Your task to perform on an android device: change the clock display to digital Image 0: 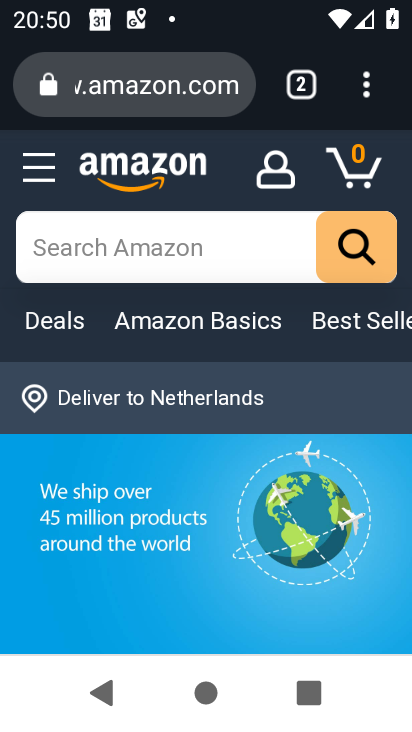
Step 0: press home button
Your task to perform on an android device: change the clock display to digital Image 1: 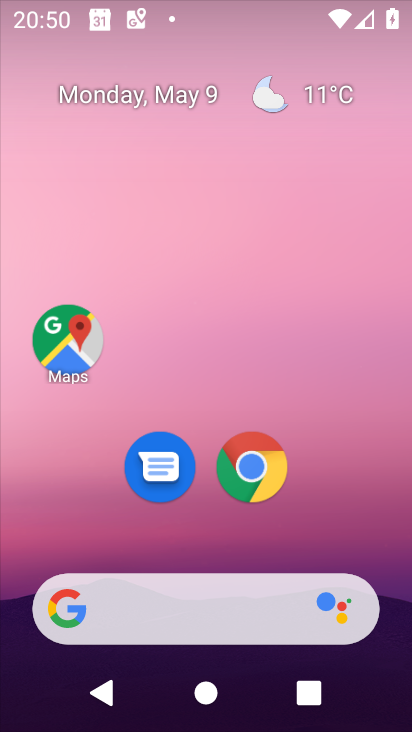
Step 1: drag from (345, 536) to (329, 282)
Your task to perform on an android device: change the clock display to digital Image 2: 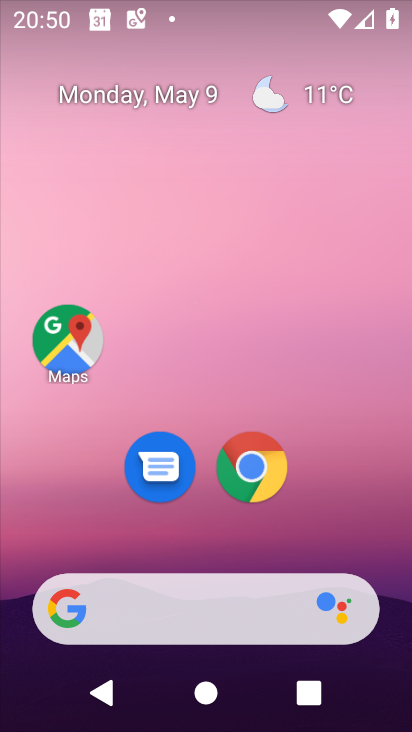
Step 2: drag from (315, 434) to (301, 294)
Your task to perform on an android device: change the clock display to digital Image 3: 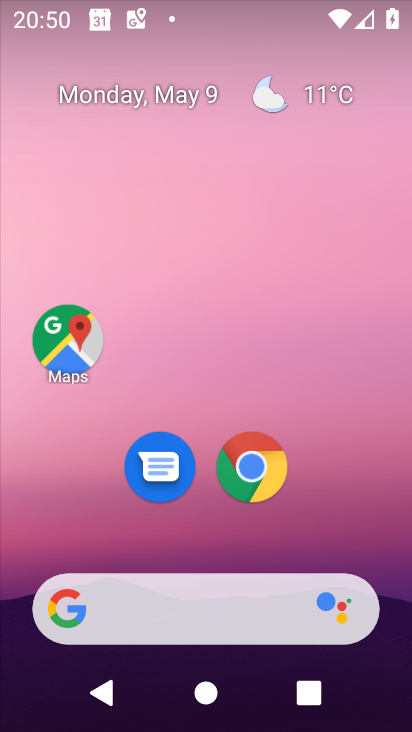
Step 3: drag from (264, 513) to (284, 243)
Your task to perform on an android device: change the clock display to digital Image 4: 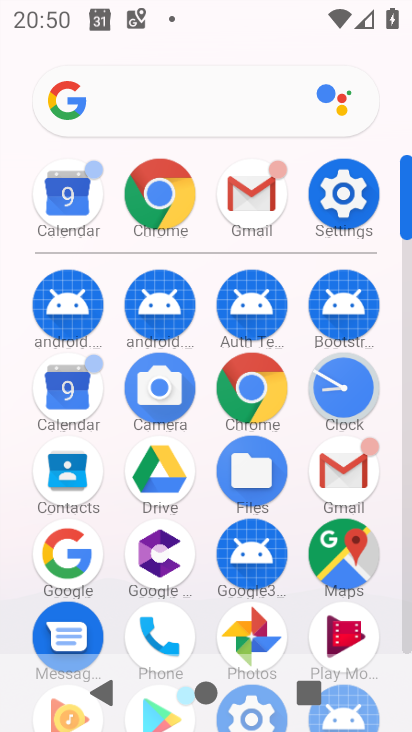
Step 4: click (349, 390)
Your task to perform on an android device: change the clock display to digital Image 5: 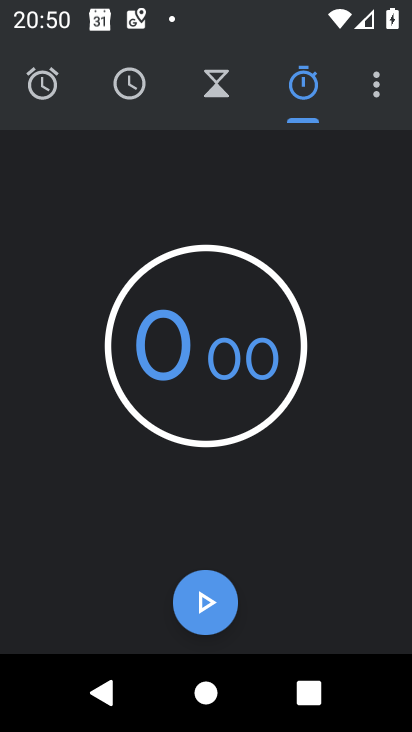
Step 5: click (368, 76)
Your task to perform on an android device: change the clock display to digital Image 6: 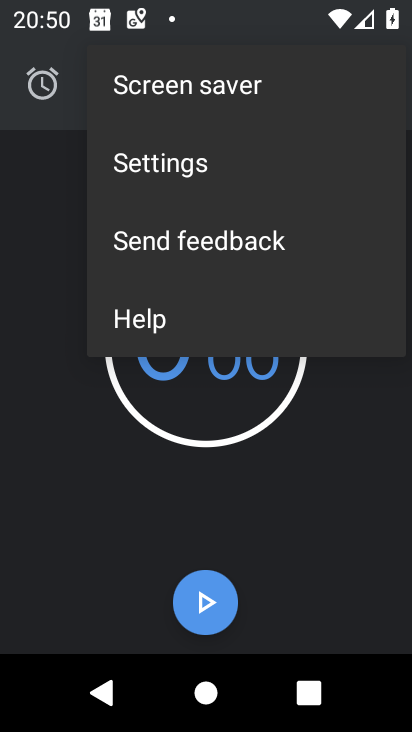
Step 6: click (186, 161)
Your task to perform on an android device: change the clock display to digital Image 7: 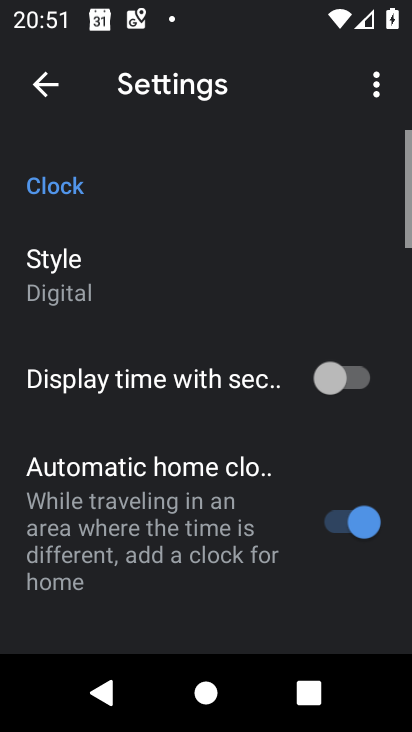
Step 7: click (91, 255)
Your task to perform on an android device: change the clock display to digital Image 8: 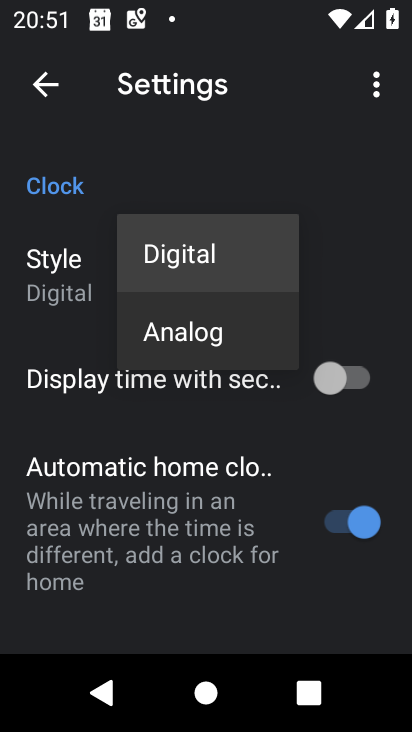
Step 8: click (167, 321)
Your task to perform on an android device: change the clock display to digital Image 9: 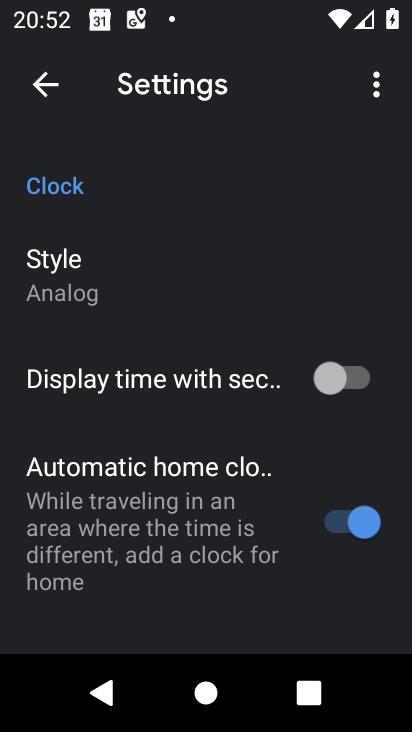
Step 9: task complete